Your task to perform on an android device: change the clock display to digital Image 0: 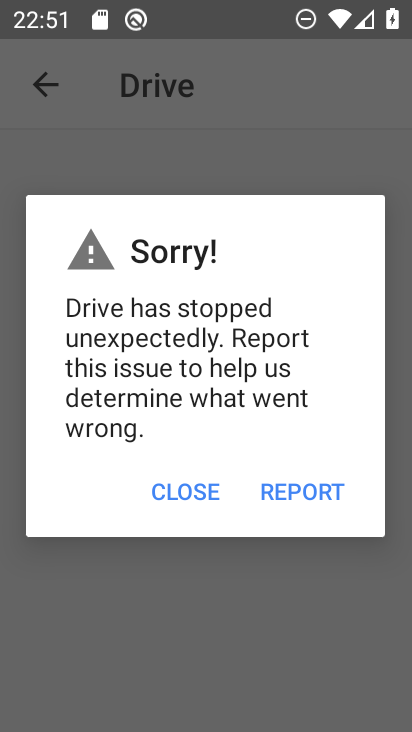
Step 0: click (322, 557)
Your task to perform on an android device: change the clock display to digital Image 1: 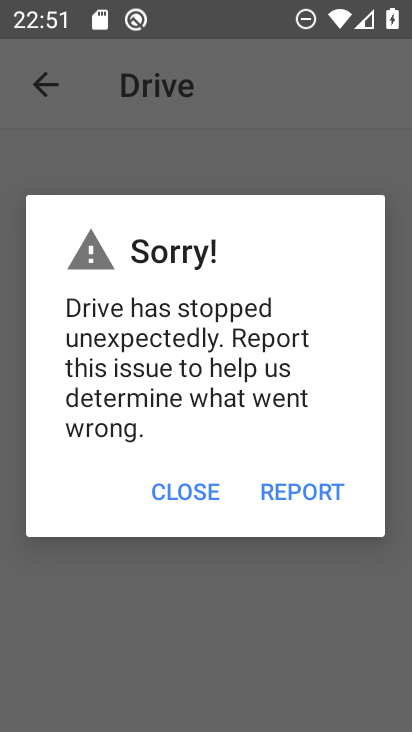
Step 1: press home button
Your task to perform on an android device: change the clock display to digital Image 2: 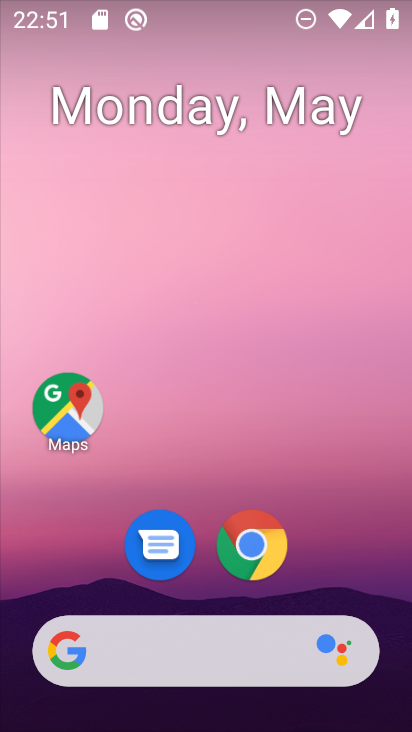
Step 2: drag from (344, 565) to (289, 101)
Your task to perform on an android device: change the clock display to digital Image 3: 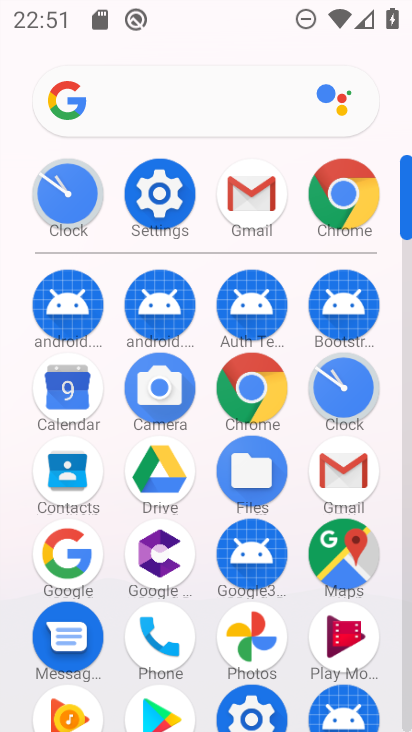
Step 3: click (340, 383)
Your task to perform on an android device: change the clock display to digital Image 4: 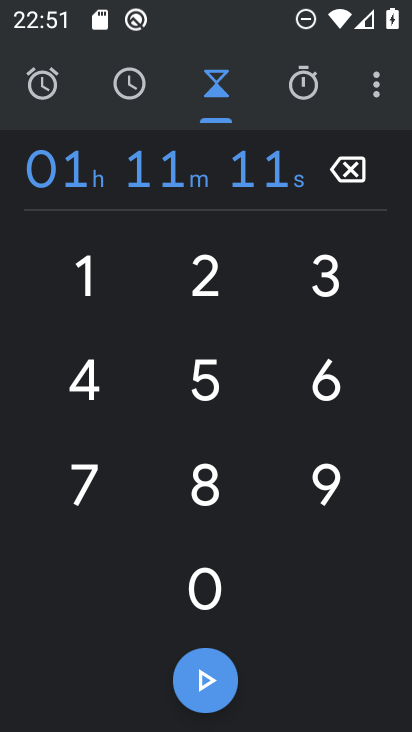
Step 4: click (377, 88)
Your task to perform on an android device: change the clock display to digital Image 5: 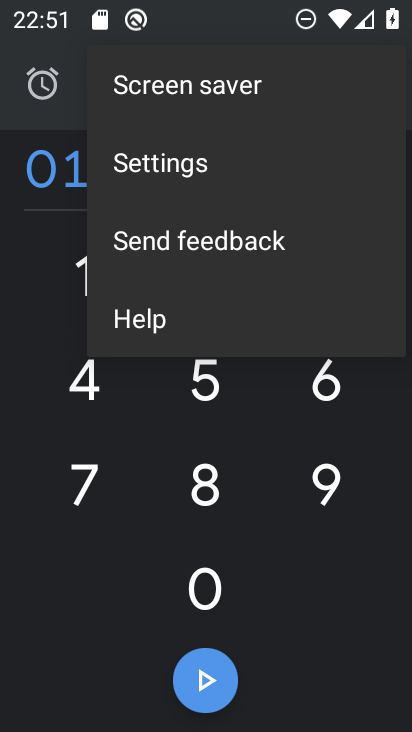
Step 5: click (186, 164)
Your task to perform on an android device: change the clock display to digital Image 6: 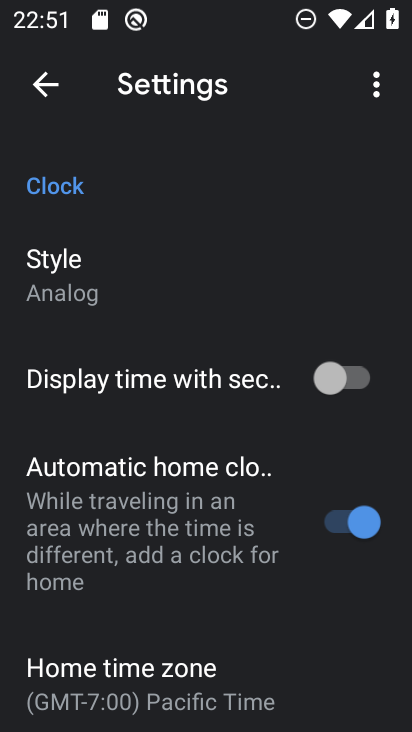
Step 6: click (63, 269)
Your task to perform on an android device: change the clock display to digital Image 7: 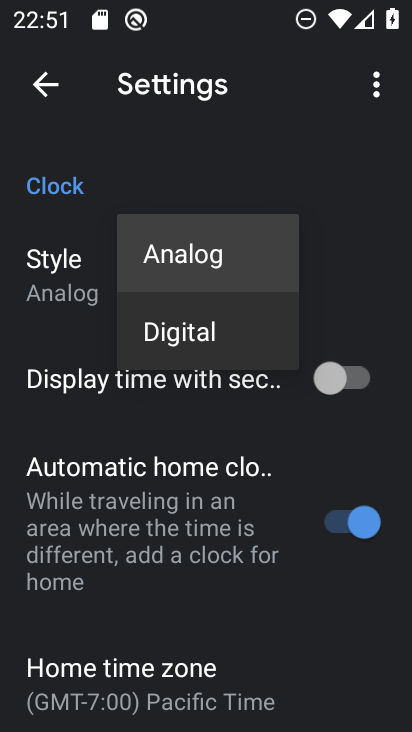
Step 7: click (166, 323)
Your task to perform on an android device: change the clock display to digital Image 8: 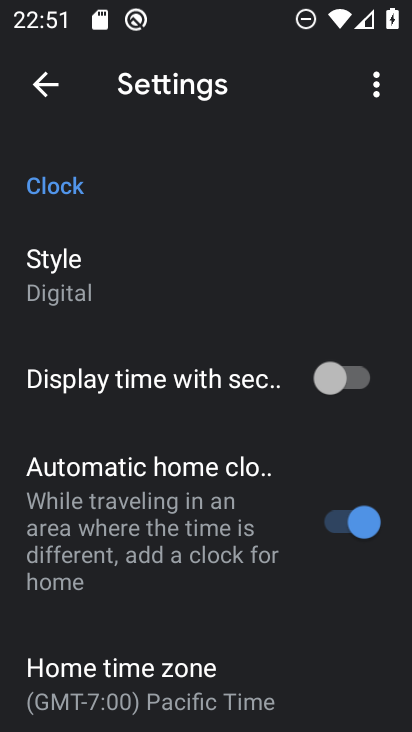
Step 8: task complete